Your task to perform on an android device: turn on data saver in the chrome app Image 0: 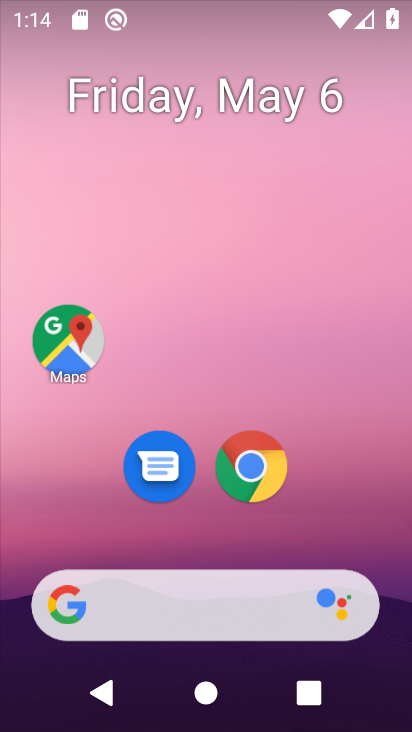
Step 0: drag from (203, 535) to (266, 28)
Your task to perform on an android device: turn on data saver in the chrome app Image 1: 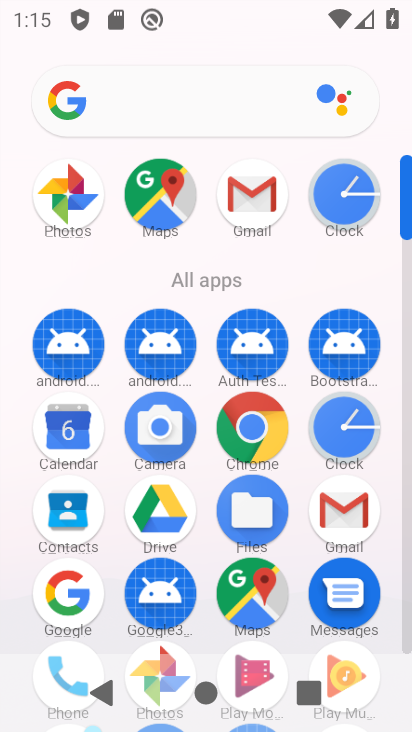
Step 1: click (251, 422)
Your task to perform on an android device: turn on data saver in the chrome app Image 2: 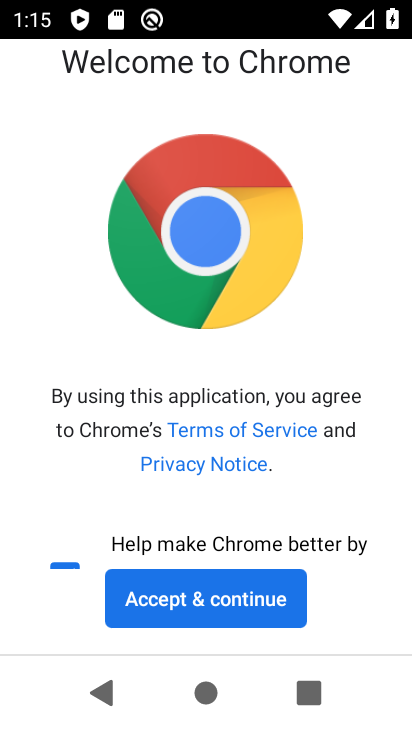
Step 2: click (197, 602)
Your task to perform on an android device: turn on data saver in the chrome app Image 3: 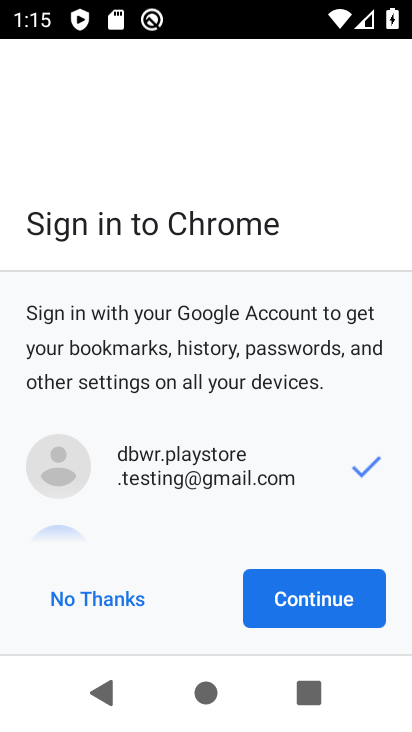
Step 3: click (322, 601)
Your task to perform on an android device: turn on data saver in the chrome app Image 4: 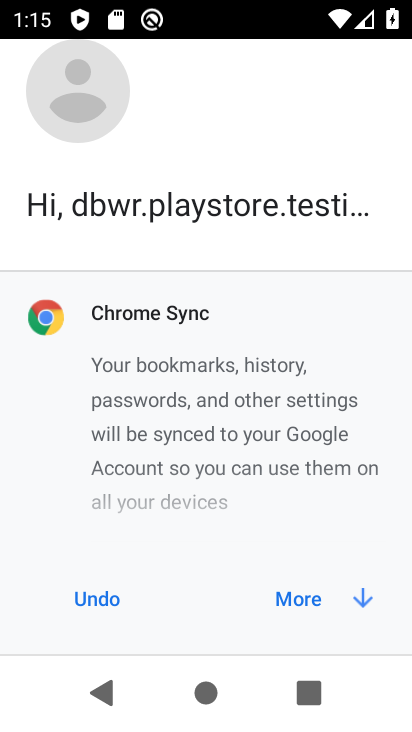
Step 4: click (322, 601)
Your task to perform on an android device: turn on data saver in the chrome app Image 5: 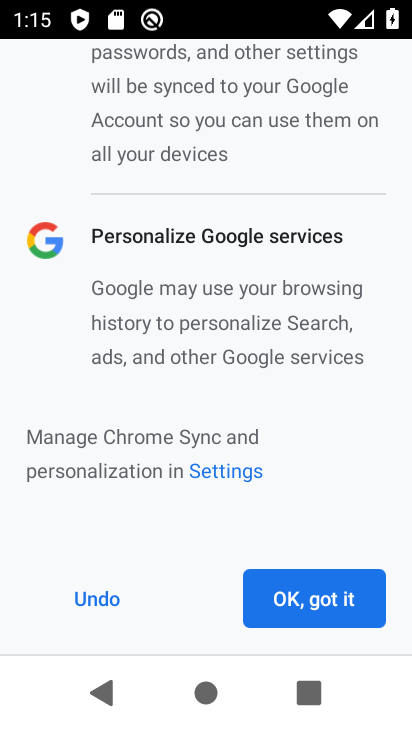
Step 5: click (322, 593)
Your task to perform on an android device: turn on data saver in the chrome app Image 6: 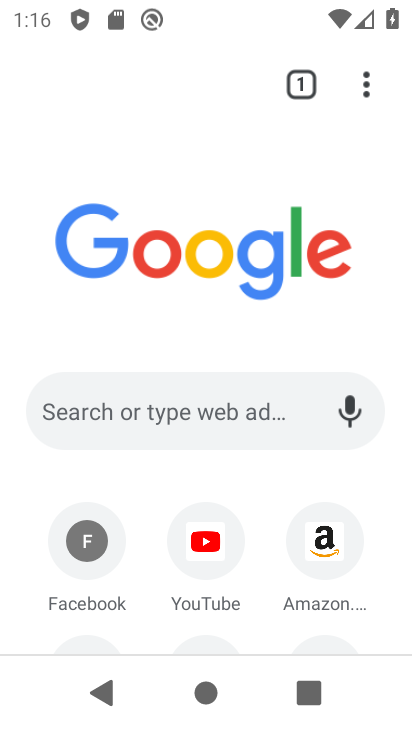
Step 6: click (371, 75)
Your task to perform on an android device: turn on data saver in the chrome app Image 7: 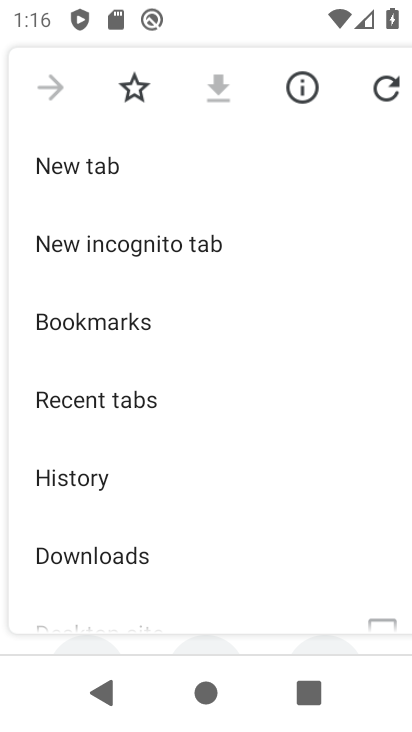
Step 7: drag from (171, 545) to (169, 65)
Your task to perform on an android device: turn on data saver in the chrome app Image 8: 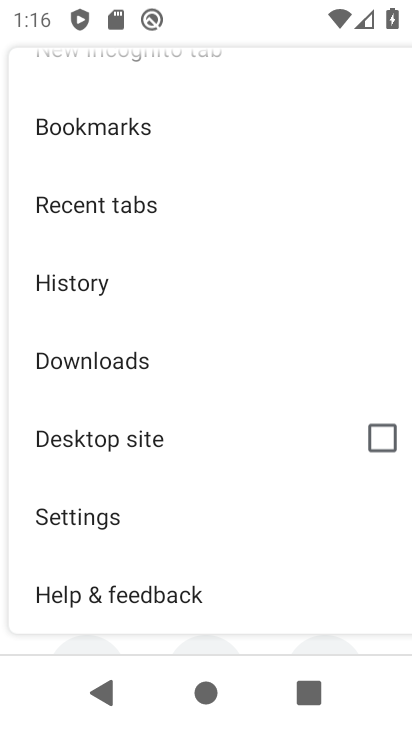
Step 8: click (125, 505)
Your task to perform on an android device: turn on data saver in the chrome app Image 9: 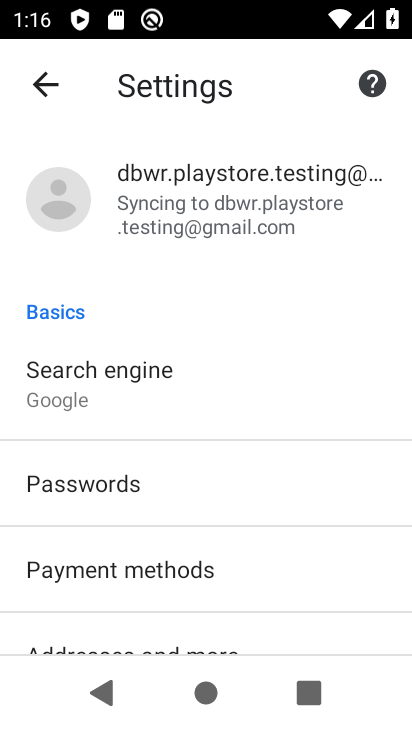
Step 9: drag from (188, 602) to (204, 103)
Your task to perform on an android device: turn on data saver in the chrome app Image 10: 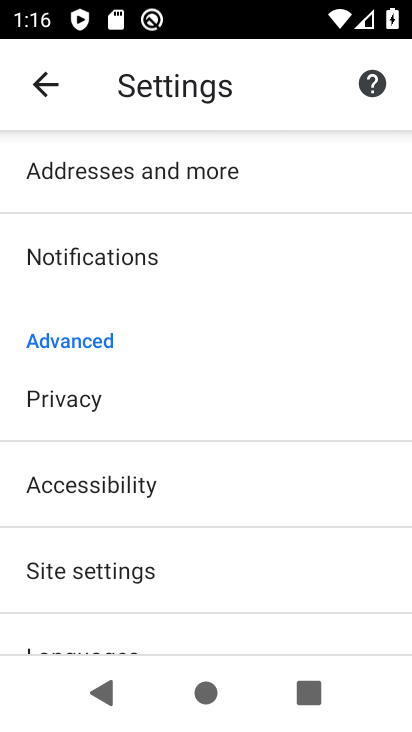
Step 10: drag from (231, 607) to (258, 154)
Your task to perform on an android device: turn on data saver in the chrome app Image 11: 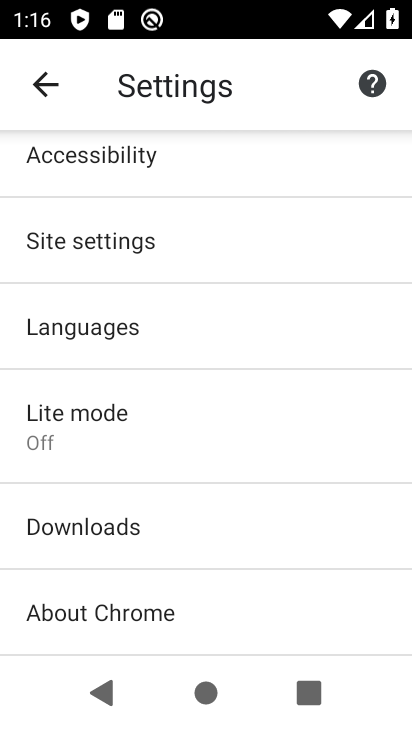
Step 11: click (103, 415)
Your task to perform on an android device: turn on data saver in the chrome app Image 12: 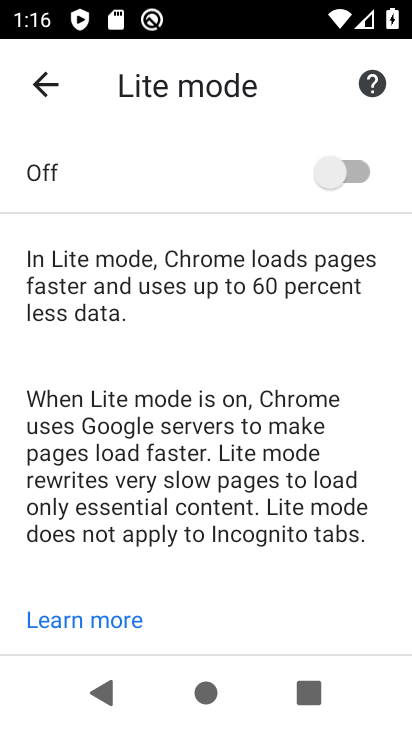
Step 12: click (339, 173)
Your task to perform on an android device: turn on data saver in the chrome app Image 13: 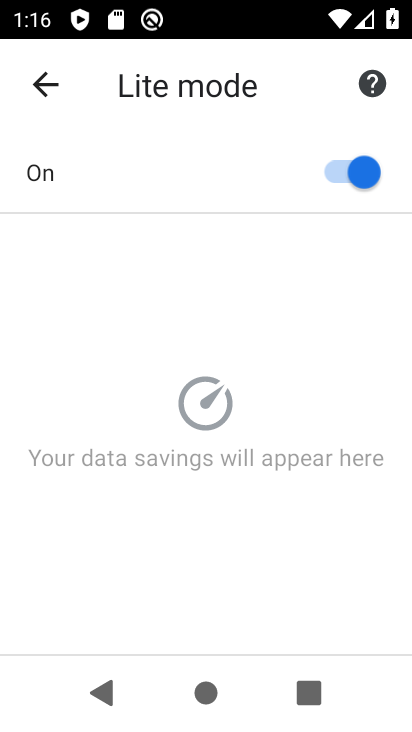
Step 13: task complete